Your task to perform on an android device: open the mobile data screen to see how much data has been used Image 0: 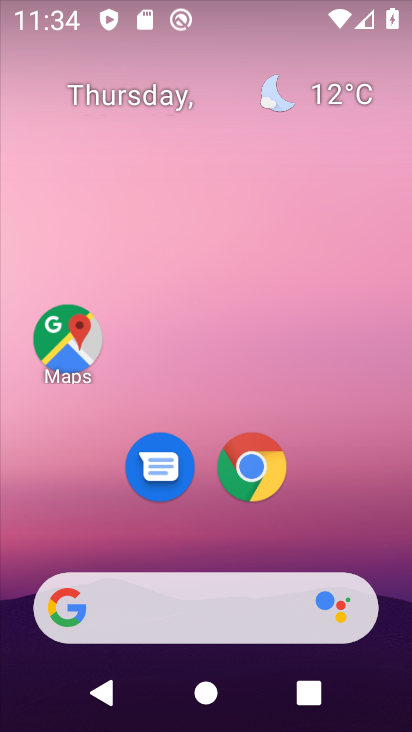
Step 0: drag from (371, 468) to (400, 167)
Your task to perform on an android device: open the mobile data screen to see how much data has been used Image 1: 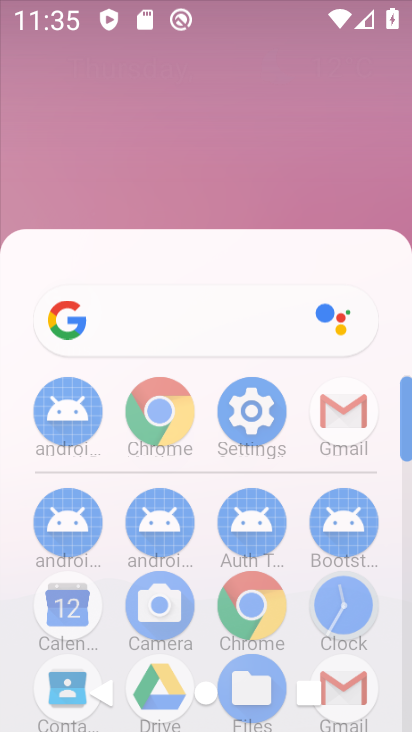
Step 1: drag from (337, 282) to (320, 147)
Your task to perform on an android device: open the mobile data screen to see how much data has been used Image 2: 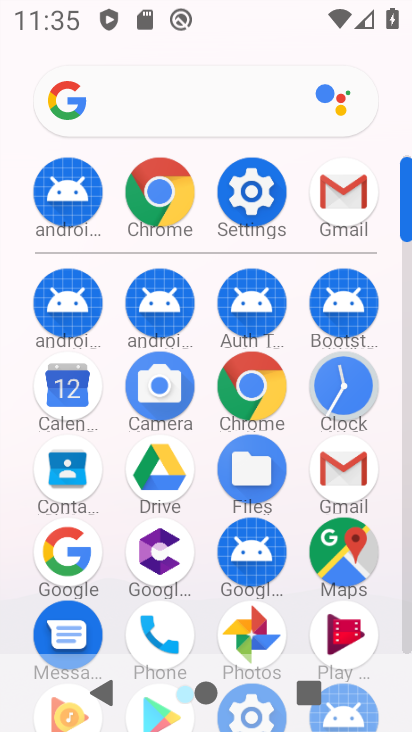
Step 2: click (262, 197)
Your task to perform on an android device: open the mobile data screen to see how much data has been used Image 3: 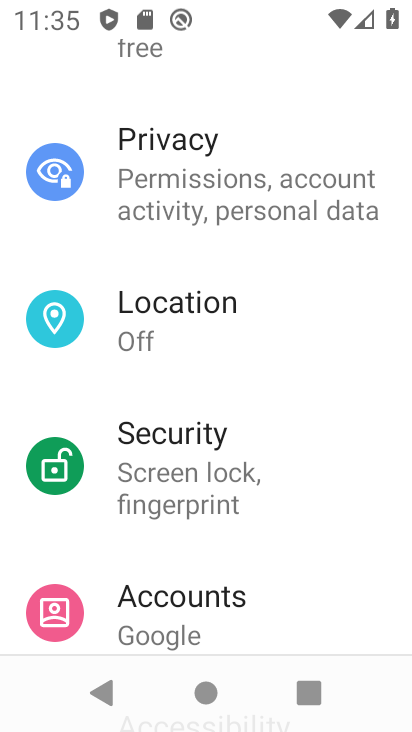
Step 3: drag from (256, 209) to (241, 571)
Your task to perform on an android device: open the mobile data screen to see how much data has been used Image 4: 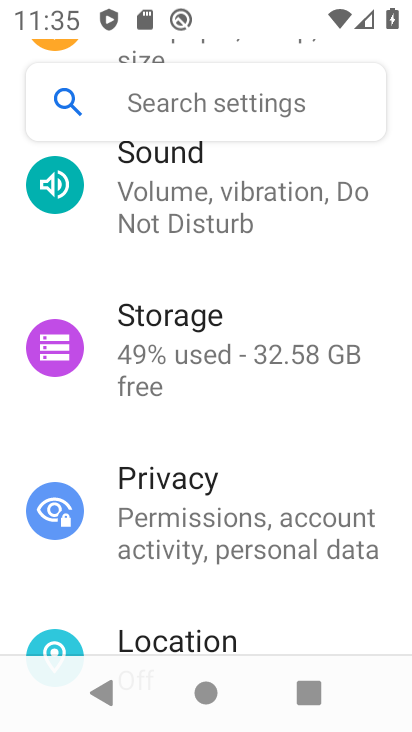
Step 4: drag from (274, 232) to (320, 574)
Your task to perform on an android device: open the mobile data screen to see how much data has been used Image 5: 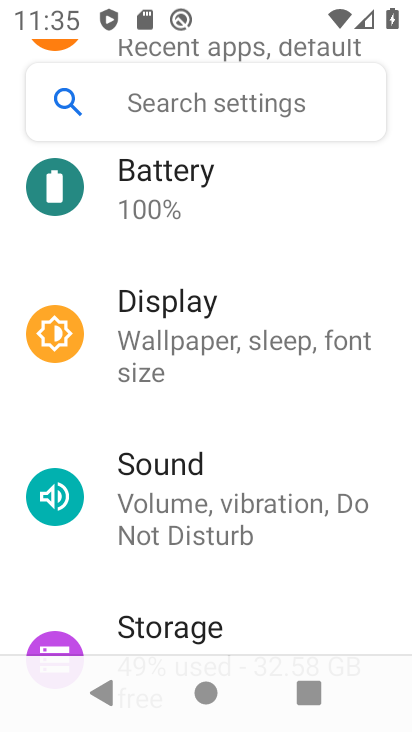
Step 5: drag from (254, 284) to (275, 645)
Your task to perform on an android device: open the mobile data screen to see how much data has been used Image 6: 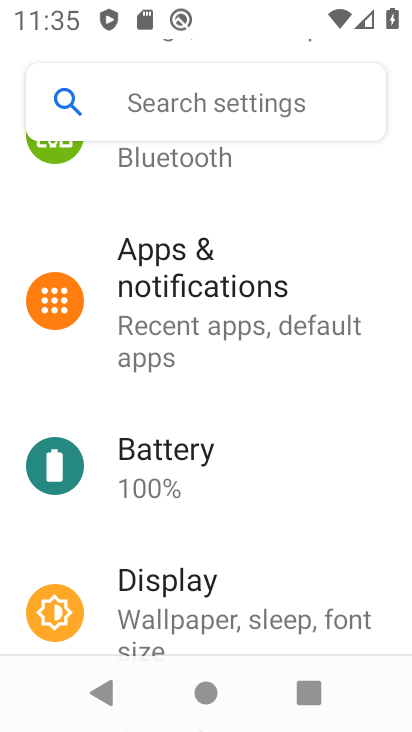
Step 6: drag from (263, 320) to (236, 643)
Your task to perform on an android device: open the mobile data screen to see how much data has been used Image 7: 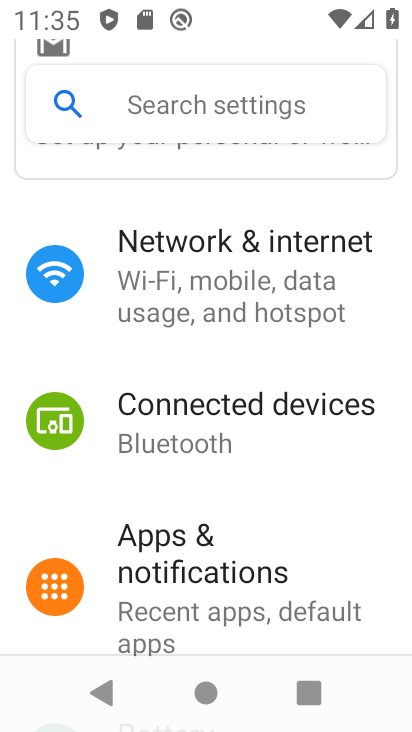
Step 7: click (234, 303)
Your task to perform on an android device: open the mobile data screen to see how much data has been used Image 8: 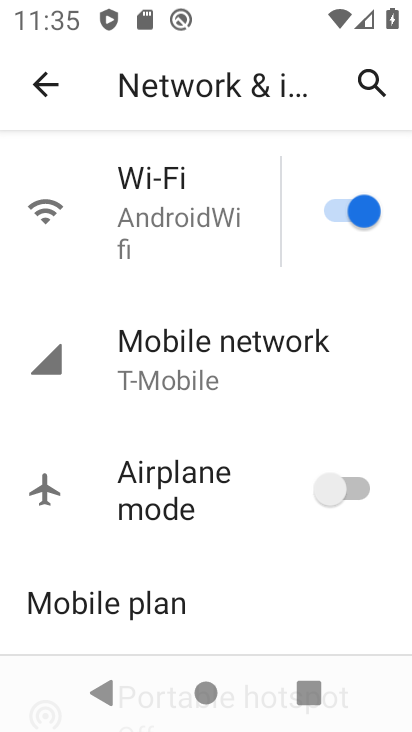
Step 8: click (216, 340)
Your task to perform on an android device: open the mobile data screen to see how much data has been used Image 9: 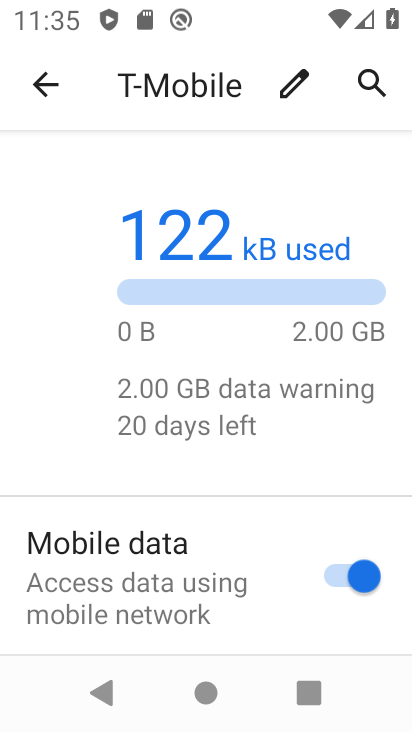
Step 9: task complete